Your task to perform on an android device: turn notification dots on Image 0: 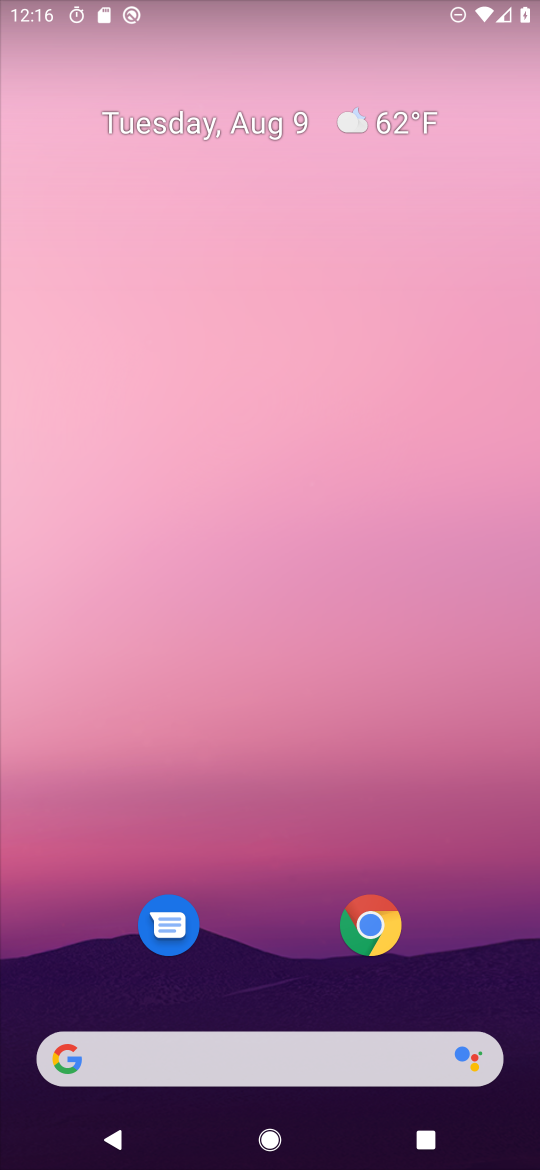
Step 0: drag from (262, 718) to (418, 172)
Your task to perform on an android device: turn notification dots on Image 1: 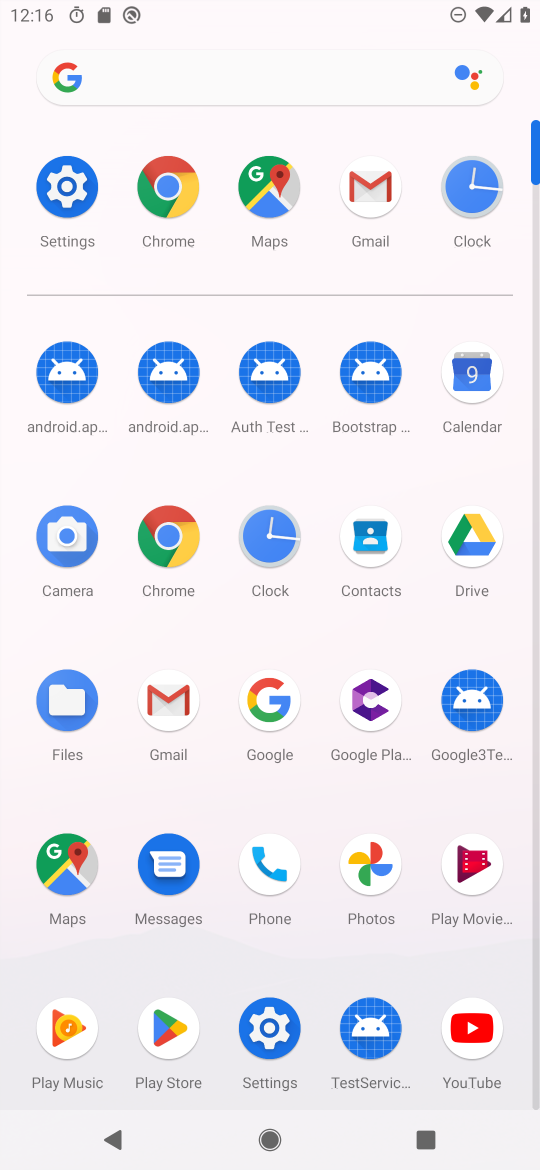
Step 1: click (77, 187)
Your task to perform on an android device: turn notification dots on Image 2: 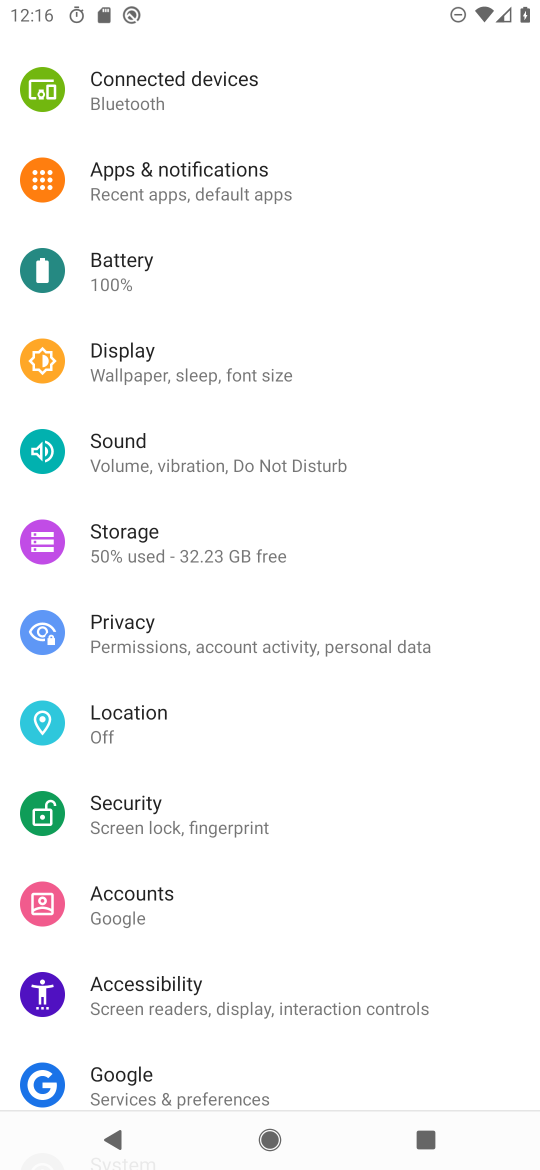
Step 2: click (227, 201)
Your task to perform on an android device: turn notification dots on Image 3: 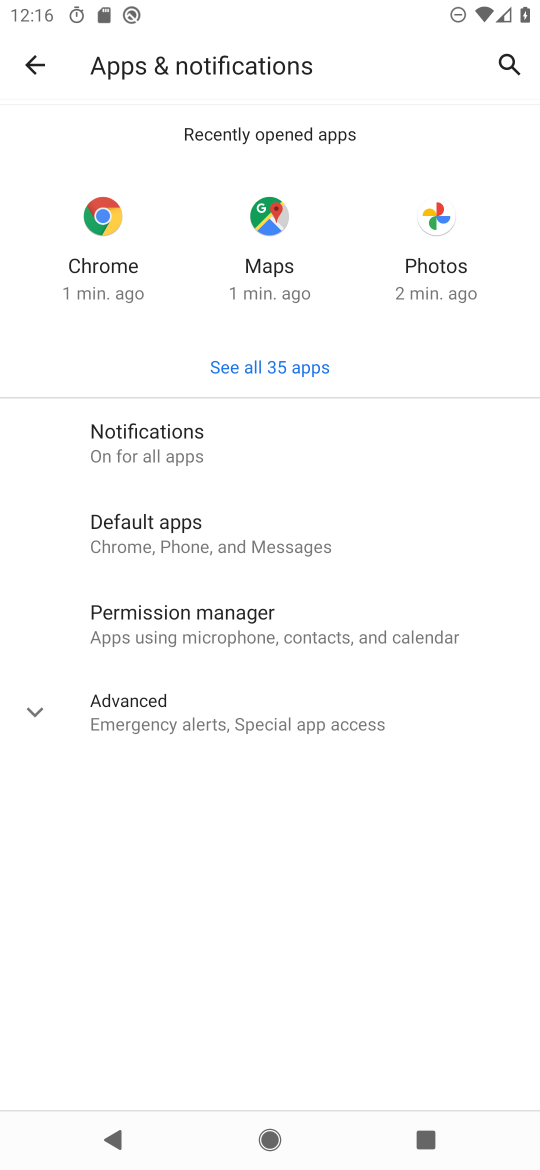
Step 3: click (188, 449)
Your task to perform on an android device: turn notification dots on Image 4: 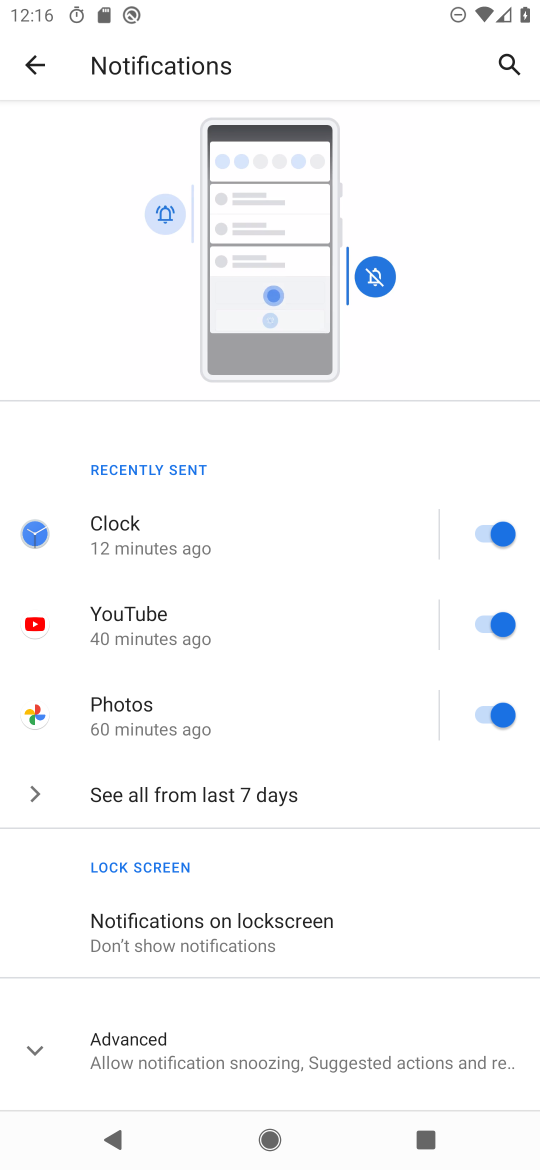
Step 4: drag from (297, 811) to (368, 358)
Your task to perform on an android device: turn notification dots on Image 5: 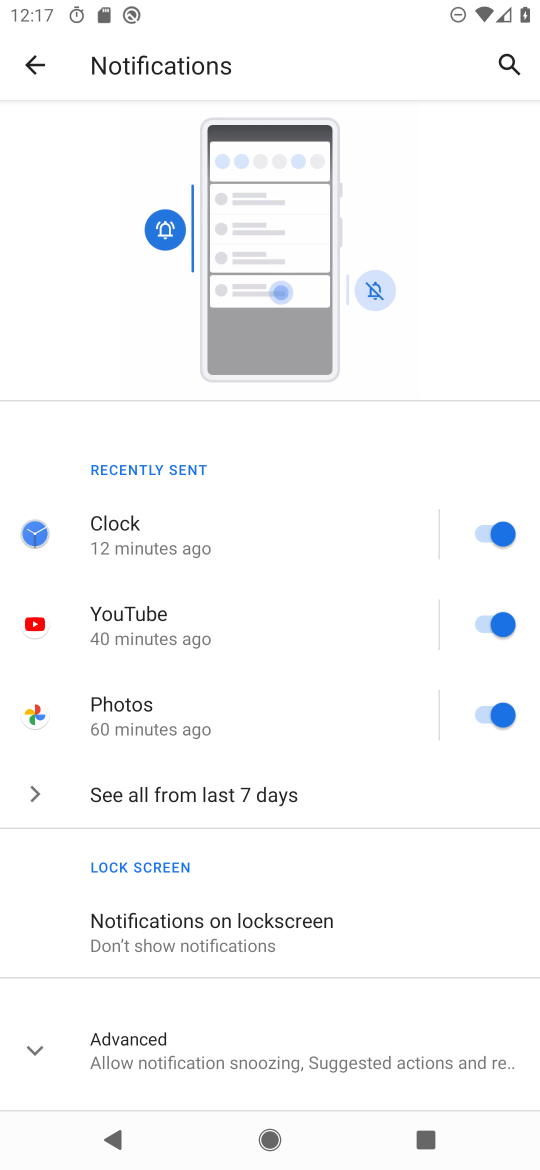
Step 5: click (121, 1057)
Your task to perform on an android device: turn notification dots on Image 6: 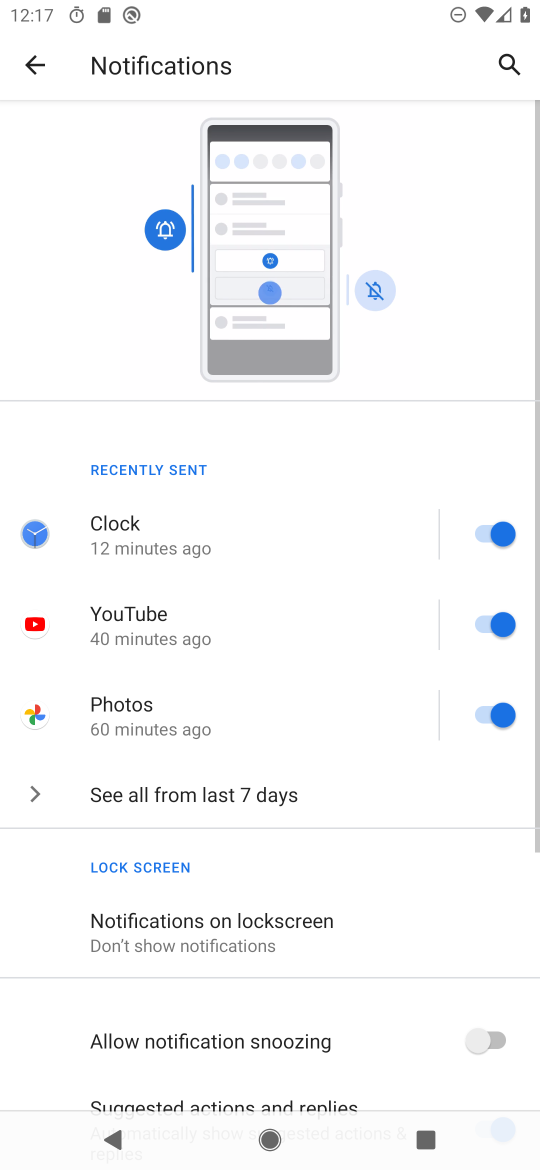
Step 6: drag from (427, 902) to (434, 334)
Your task to perform on an android device: turn notification dots on Image 7: 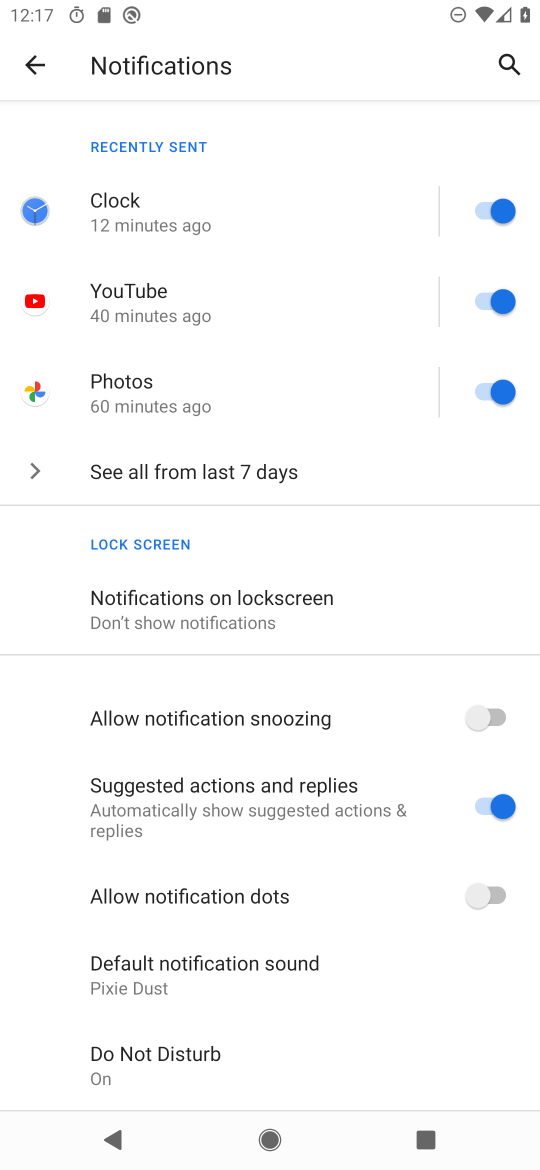
Step 7: click (472, 869)
Your task to perform on an android device: turn notification dots on Image 8: 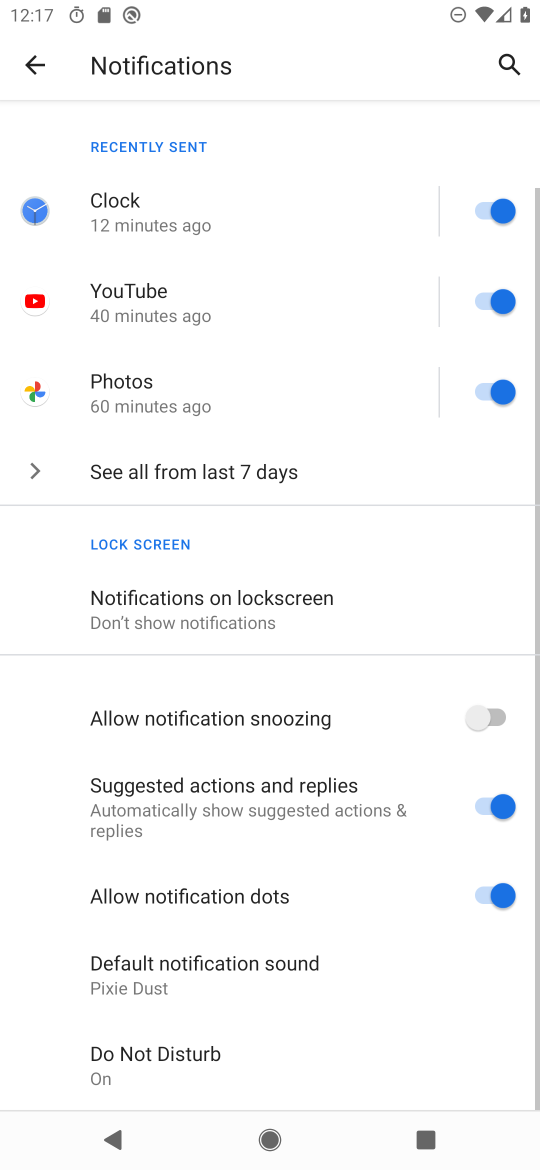
Step 8: task complete